Your task to perform on an android device: toggle priority inbox in the gmail app Image 0: 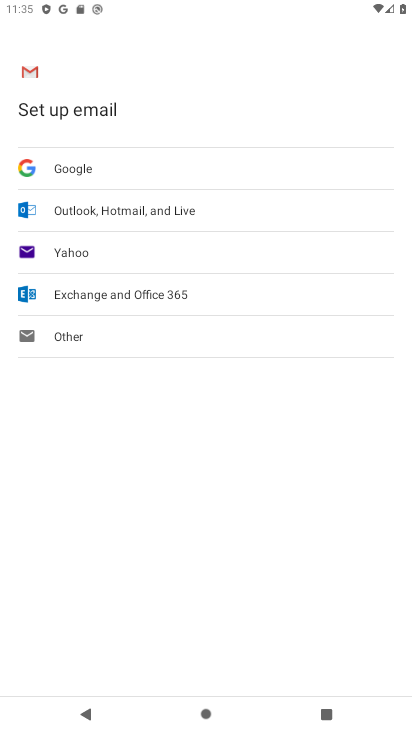
Step 0: press home button
Your task to perform on an android device: toggle priority inbox in the gmail app Image 1: 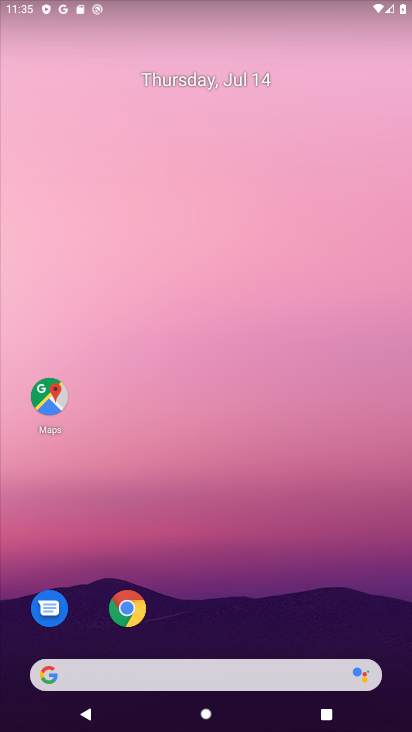
Step 1: drag from (265, 319) to (20, 142)
Your task to perform on an android device: toggle priority inbox in the gmail app Image 2: 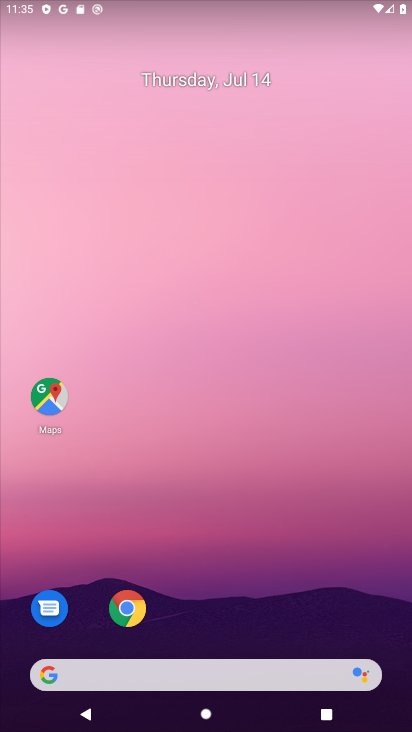
Step 2: drag from (316, 600) to (252, 2)
Your task to perform on an android device: toggle priority inbox in the gmail app Image 3: 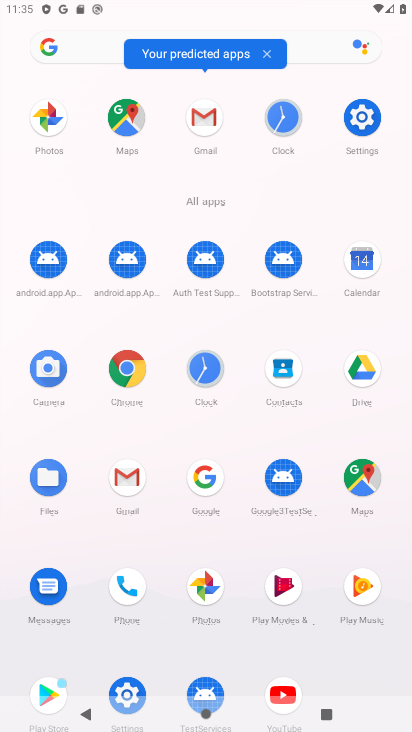
Step 3: click (214, 113)
Your task to perform on an android device: toggle priority inbox in the gmail app Image 4: 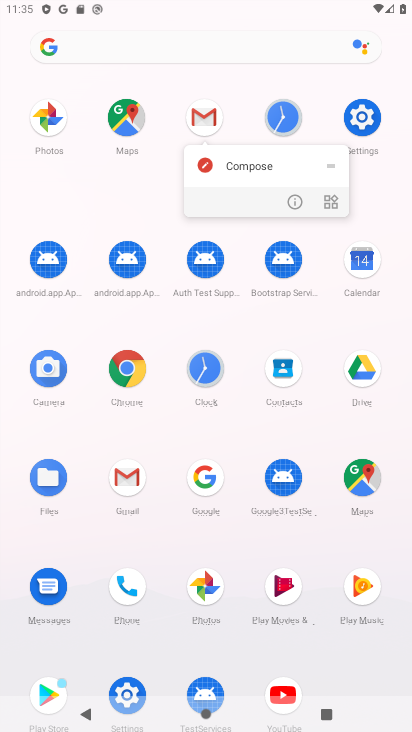
Step 4: click (205, 118)
Your task to perform on an android device: toggle priority inbox in the gmail app Image 5: 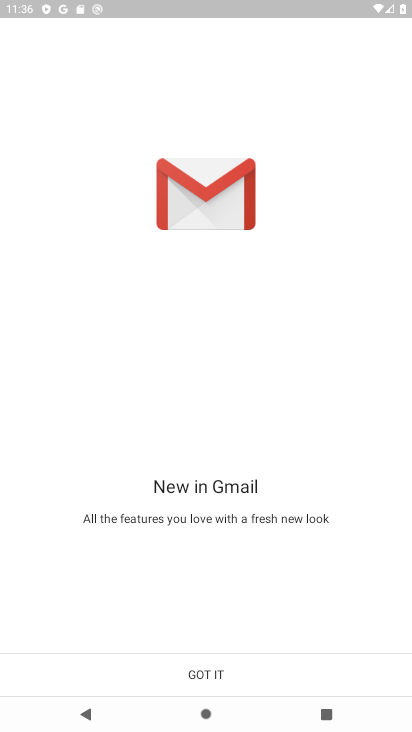
Step 5: click (214, 680)
Your task to perform on an android device: toggle priority inbox in the gmail app Image 6: 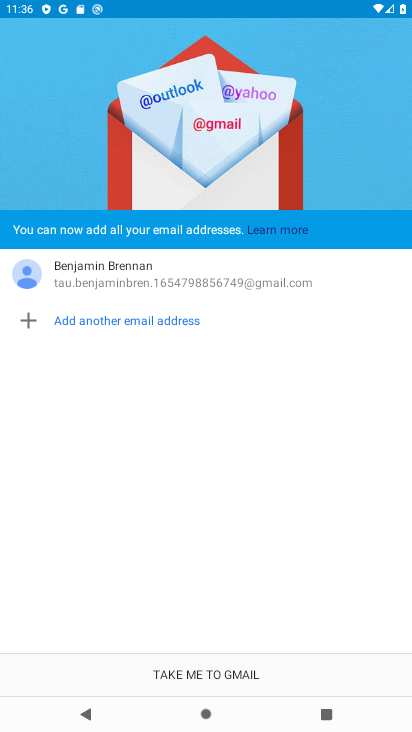
Step 6: click (211, 679)
Your task to perform on an android device: toggle priority inbox in the gmail app Image 7: 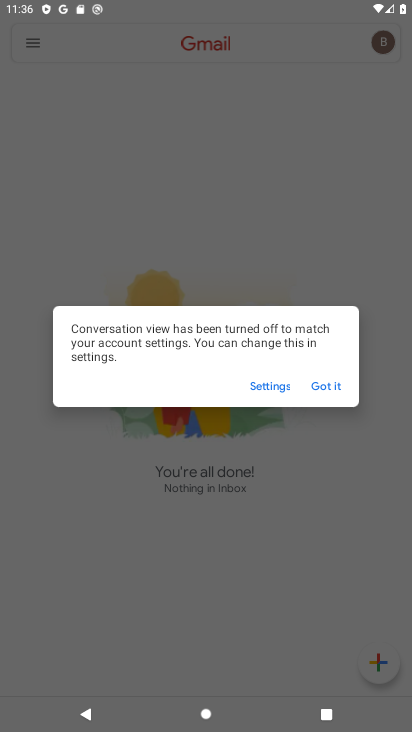
Step 7: click (328, 375)
Your task to perform on an android device: toggle priority inbox in the gmail app Image 8: 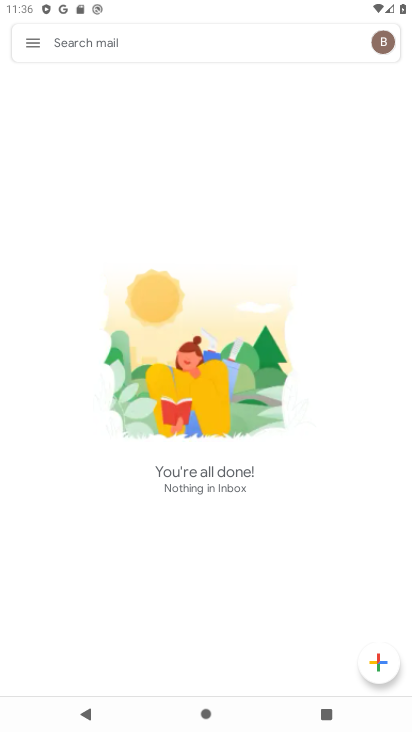
Step 8: click (33, 45)
Your task to perform on an android device: toggle priority inbox in the gmail app Image 9: 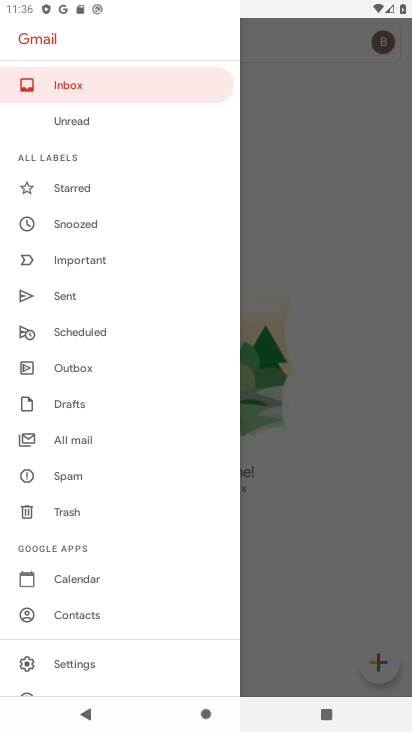
Step 9: drag from (136, 576) to (168, 128)
Your task to perform on an android device: toggle priority inbox in the gmail app Image 10: 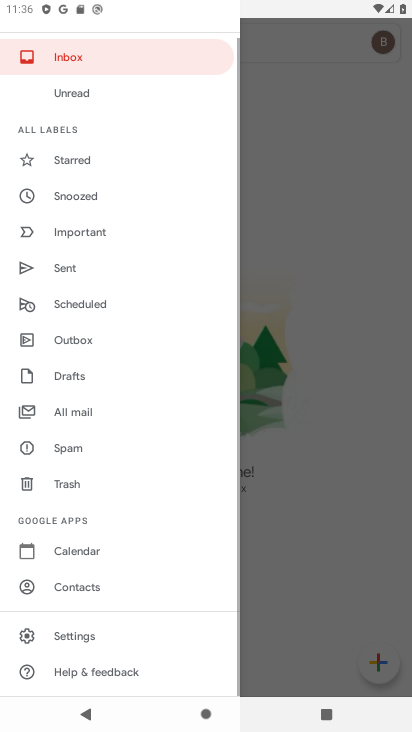
Step 10: click (88, 645)
Your task to perform on an android device: toggle priority inbox in the gmail app Image 11: 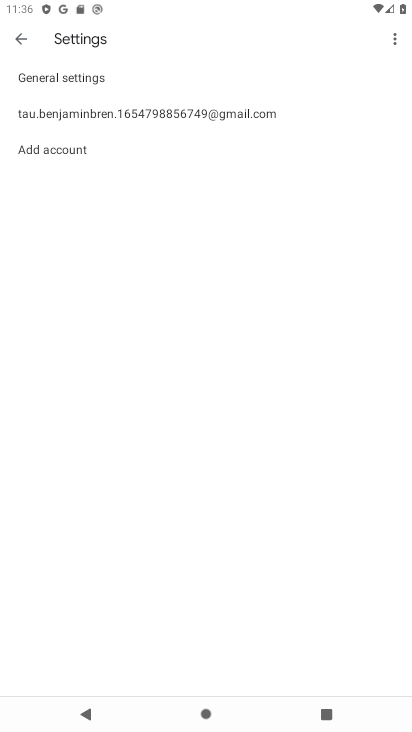
Step 11: click (88, 121)
Your task to perform on an android device: toggle priority inbox in the gmail app Image 12: 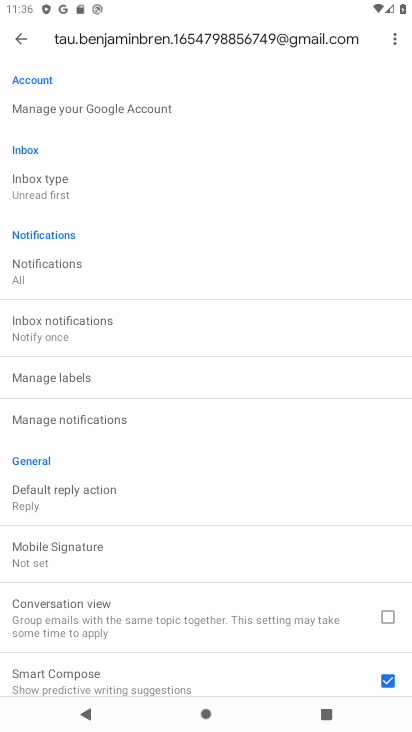
Step 12: click (37, 188)
Your task to perform on an android device: toggle priority inbox in the gmail app Image 13: 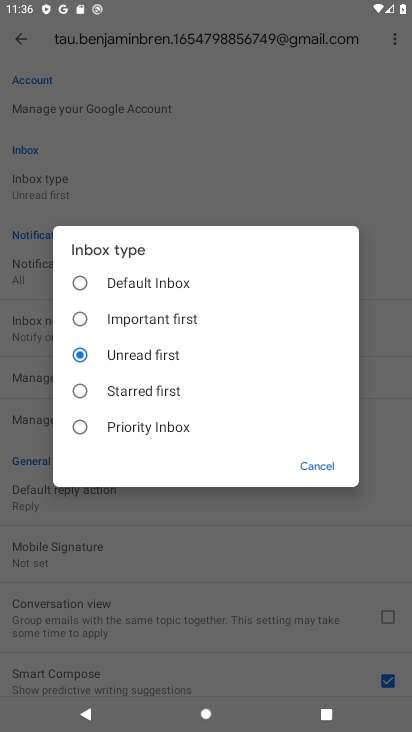
Step 13: click (122, 435)
Your task to perform on an android device: toggle priority inbox in the gmail app Image 14: 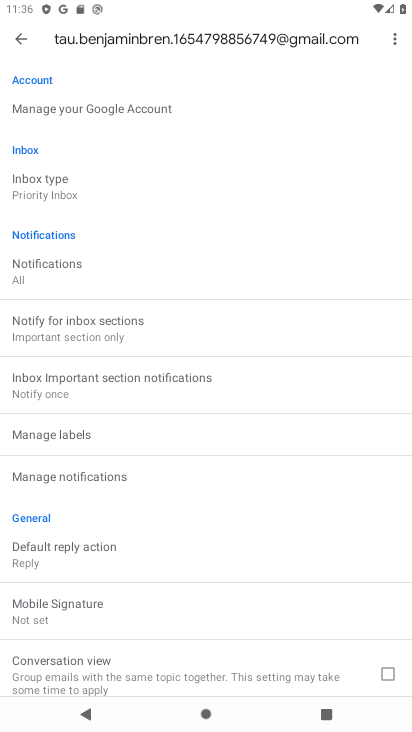
Step 14: task complete